Your task to perform on an android device: manage bookmarks in the chrome app Image 0: 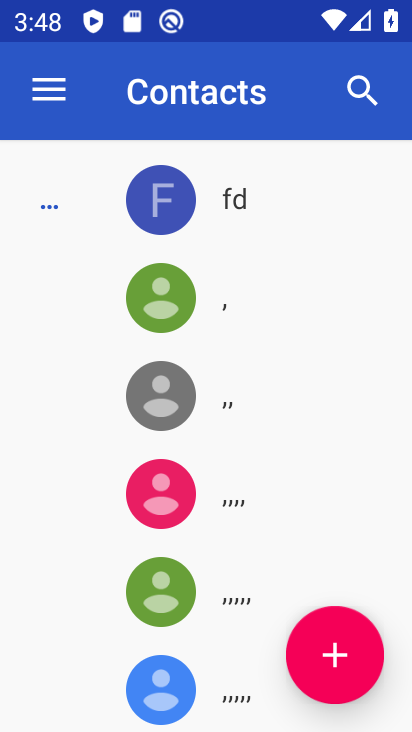
Step 0: drag from (202, 632) to (230, 260)
Your task to perform on an android device: manage bookmarks in the chrome app Image 1: 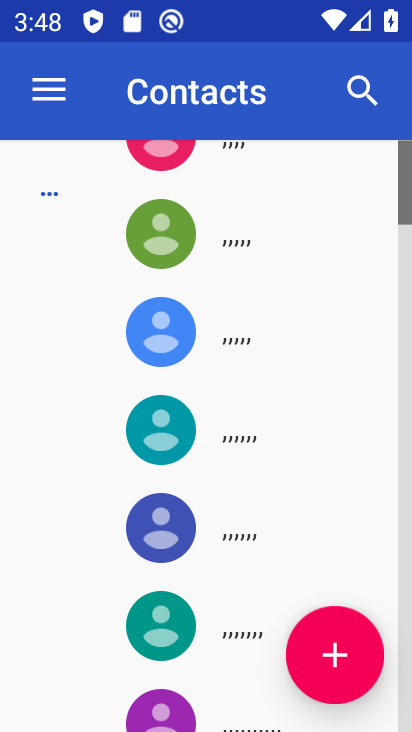
Step 1: press home button
Your task to perform on an android device: manage bookmarks in the chrome app Image 2: 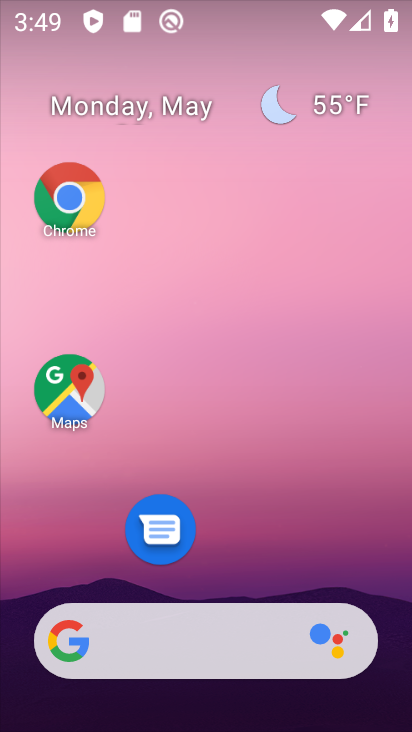
Step 2: click (61, 223)
Your task to perform on an android device: manage bookmarks in the chrome app Image 3: 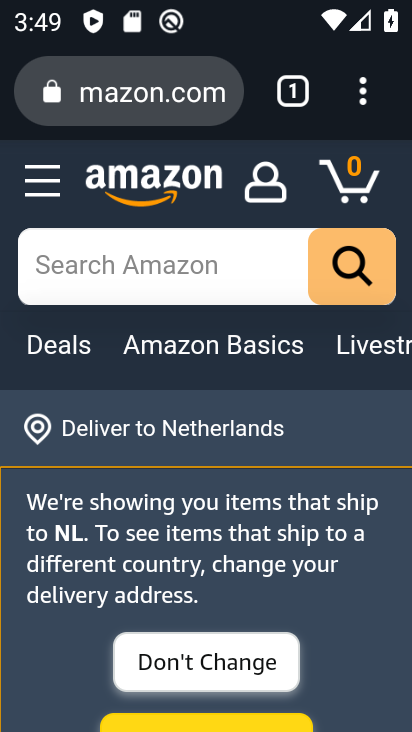
Step 3: click (371, 99)
Your task to perform on an android device: manage bookmarks in the chrome app Image 4: 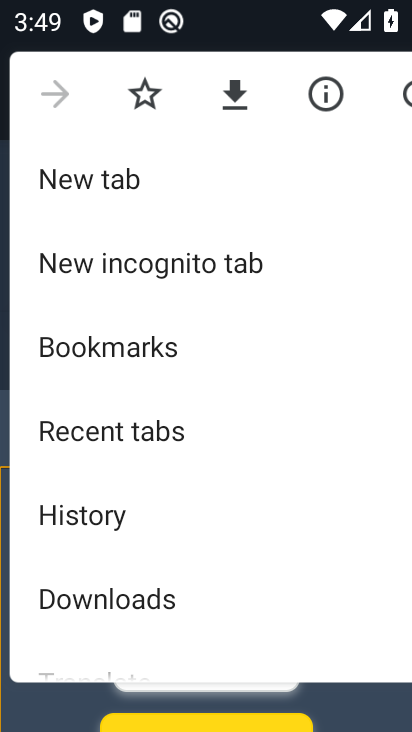
Step 4: click (151, 347)
Your task to perform on an android device: manage bookmarks in the chrome app Image 5: 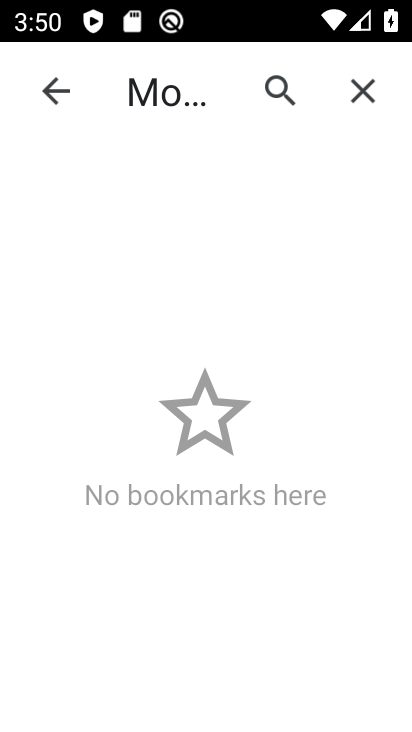
Step 5: task complete